Your task to perform on an android device: Show me the alarms in the clock app Image 0: 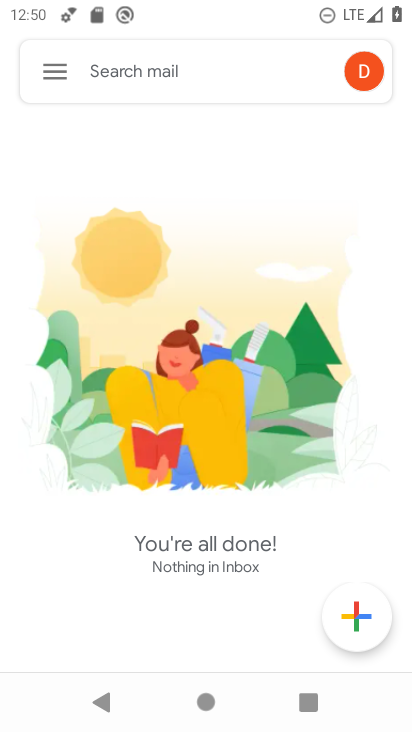
Step 0: press home button
Your task to perform on an android device: Show me the alarms in the clock app Image 1: 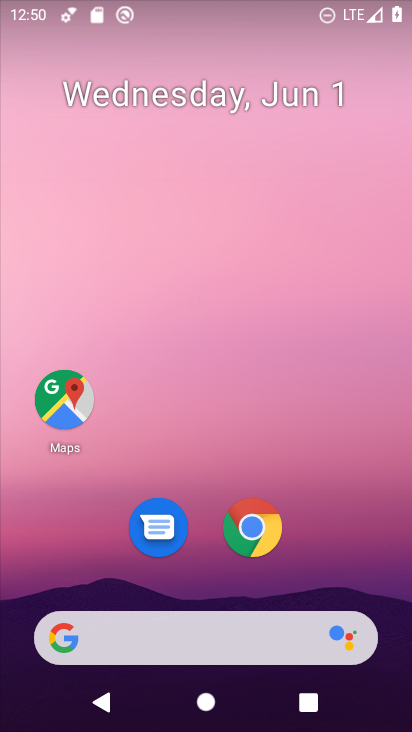
Step 1: drag from (184, 491) to (154, 17)
Your task to perform on an android device: Show me the alarms in the clock app Image 2: 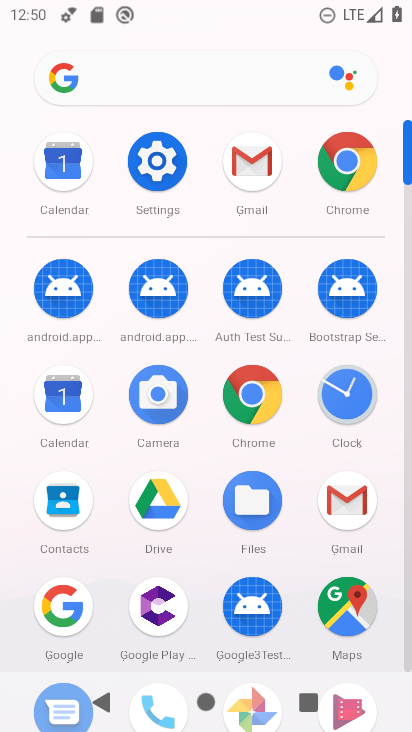
Step 2: click (353, 390)
Your task to perform on an android device: Show me the alarms in the clock app Image 3: 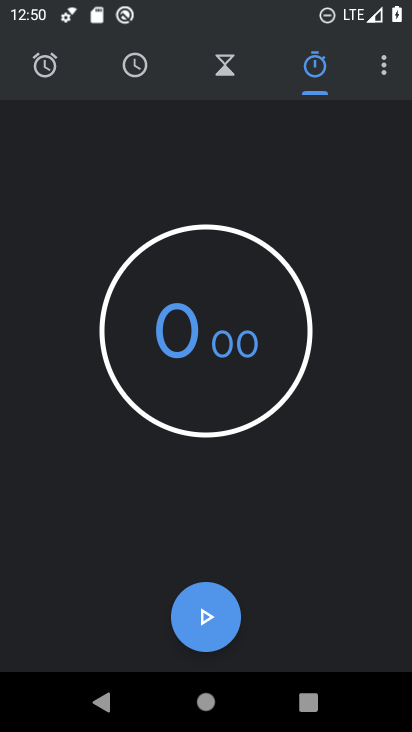
Step 3: click (35, 59)
Your task to perform on an android device: Show me the alarms in the clock app Image 4: 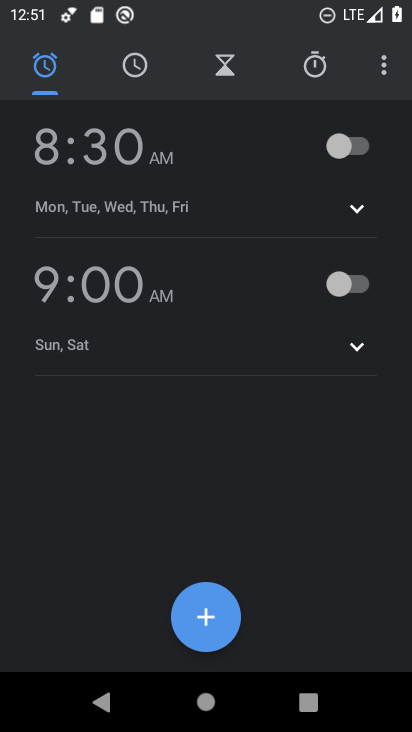
Step 4: task complete